Your task to perform on an android device: refresh tabs in the chrome app Image 0: 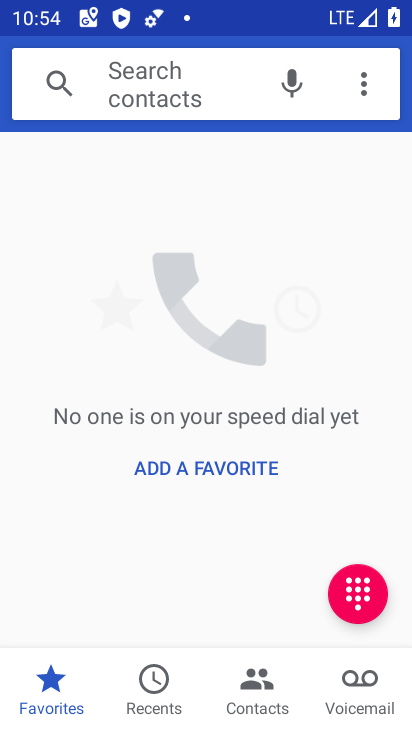
Step 0: press home button
Your task to perform on an android device: refresh tabs in the chrome app Image 1: 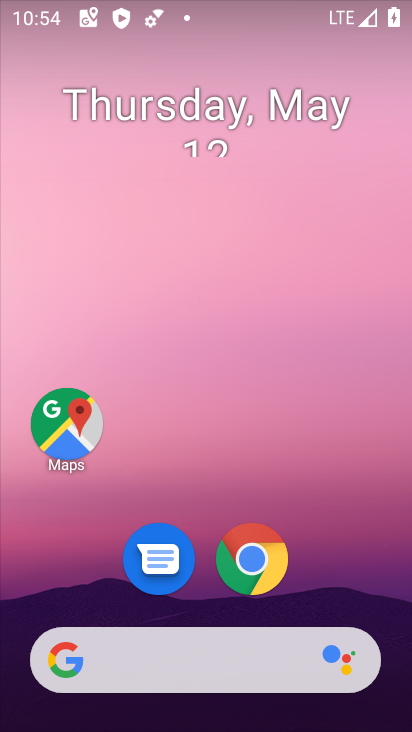
Step 1: click (243, 563)
Your task to perform on an android device: refresh tabs in the chrome app Image 2: 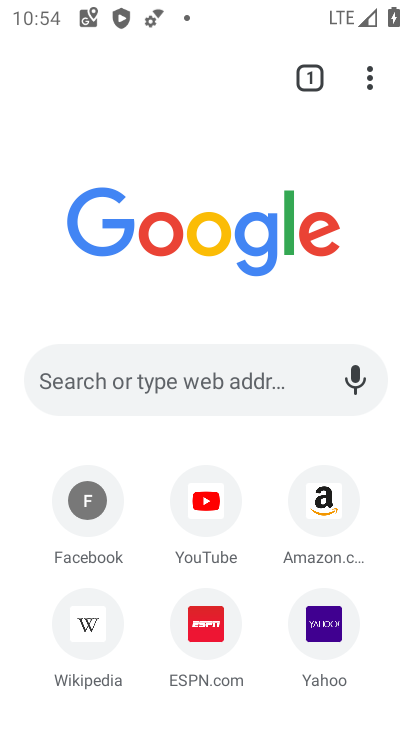
Step 2: click (365, 80)
Your task to perform on an android device: refresh tabs in the chrome app Image 3: 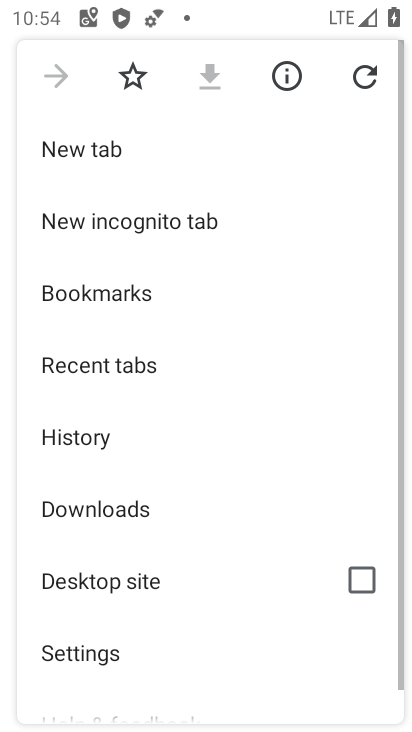
Step 3: click (370, 87)
Your task to perform on an android device: refresh tabs in the chrome app Image 4: 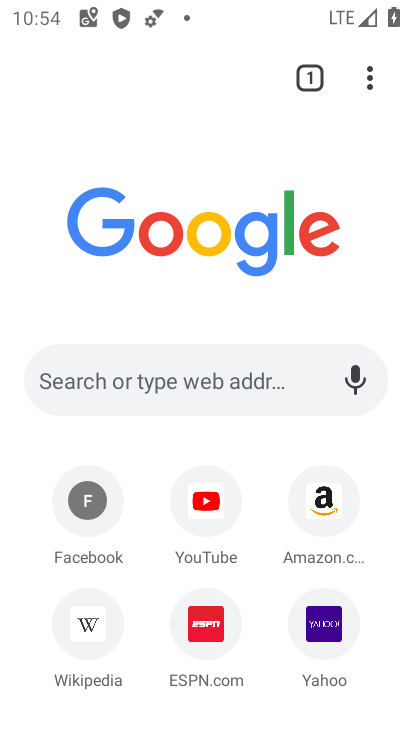
Step 4: task complete